Your task to perform on an android device: View the shopping cart on costco. Search for "macbook pro 13 inch" on costco, select the first entry, and add it to the cart. Image 0: 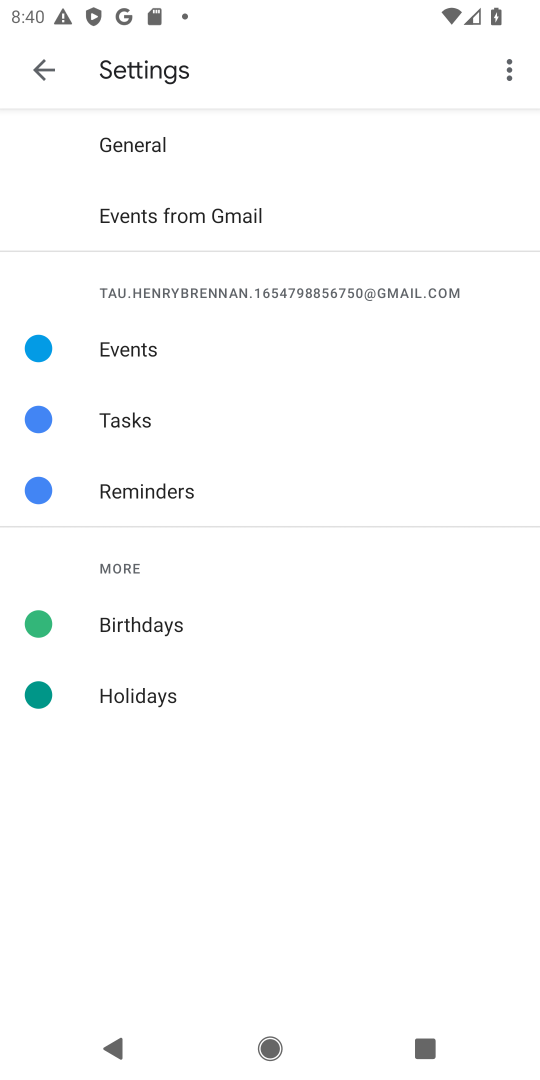
Step 0: press home button
Your task to perform on an android device: View the shopping cart on costco. Search for "macbook pro 13 inch" on costco, select the first entry, and add it to the cart. Image 1: 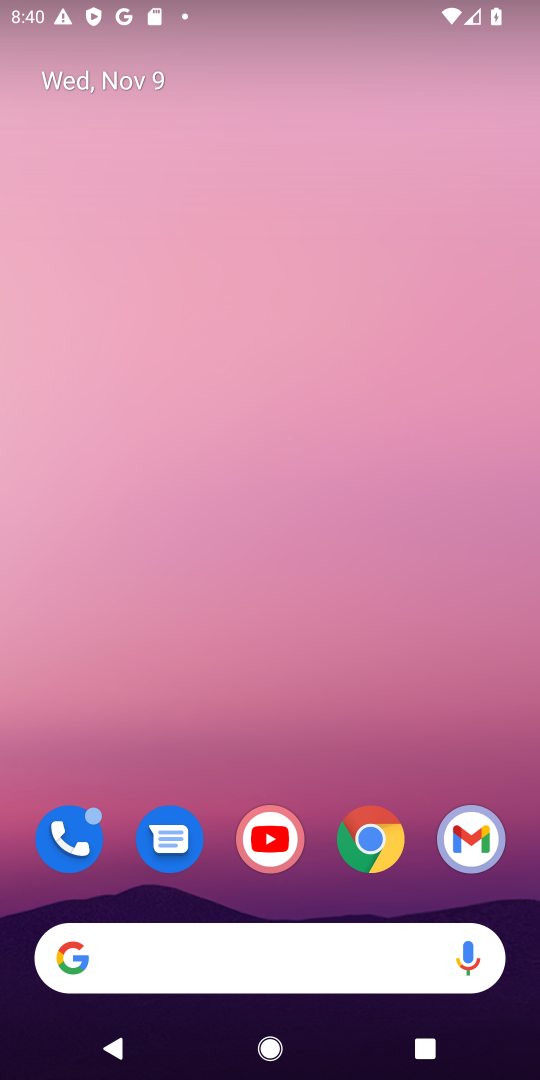
Step 1: drag from (281, 801) to (155, 98)
Your task to perform on an android device: View the shopping cart on costco. Search for "macbook pro 13 inch" on costco, select the first entry, and add it to the cart. Image 2: 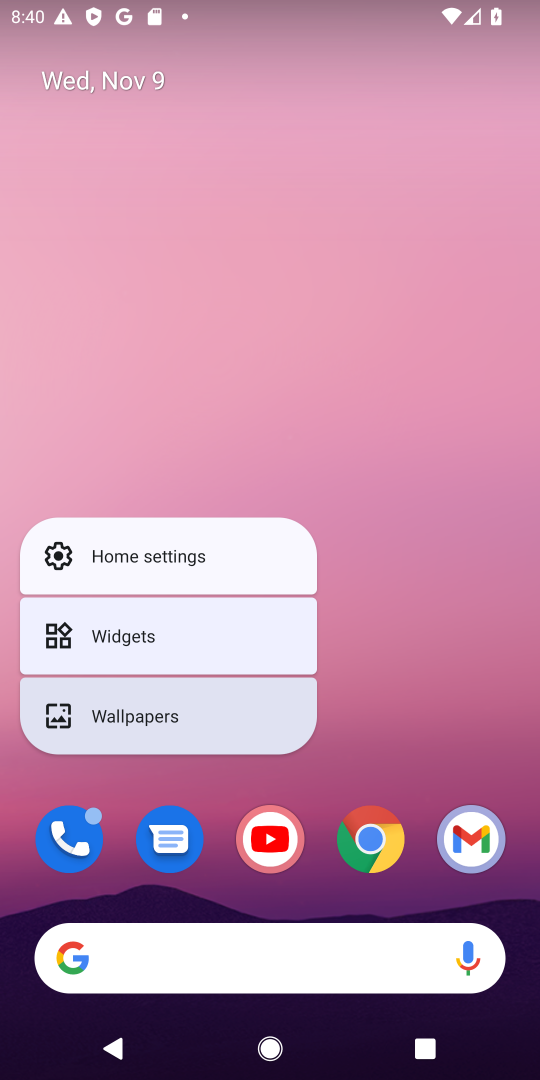
Step 2: click (223, 445)
Your task to perform on an android device: View the shopping cart on costco. Search for "macbook pro 13 inch" on costco, select the first entry, and add it to the cart. Image 3: 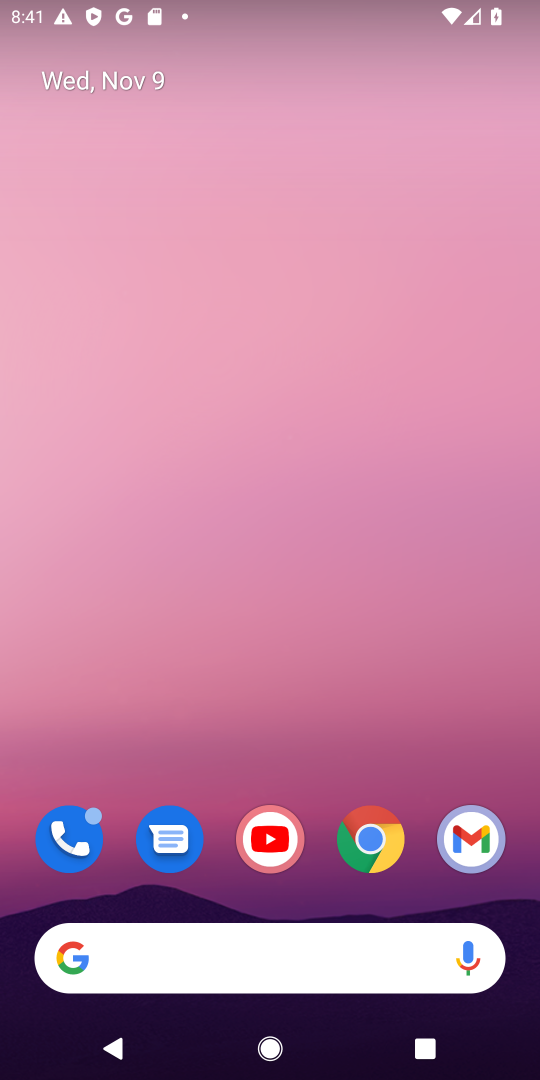
Step 3: drag from (321, 782) to (242, 81)
Your task to perform on an android device: View the shopping cart on costco. Search for "macbook pro 13 inch" on costco, select the first entry, and add it to the cart. Image 4: 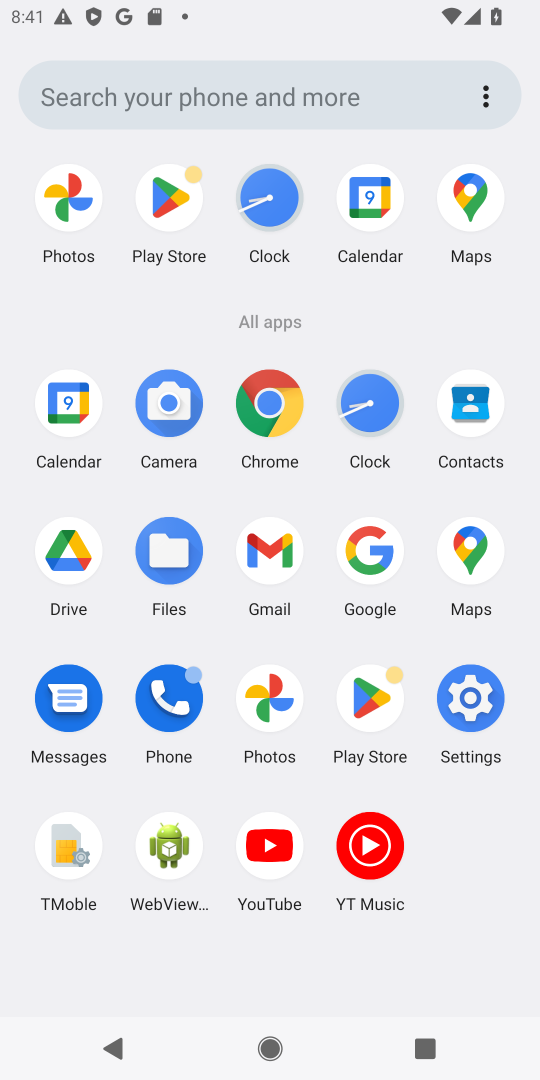
Step 4: click (270, 437)
Your task to perform on an android device: View the shopping cart on costco. Search for "macbook pro 13 inch" on costco, select the first entry, and add it to the cart. Image 5: 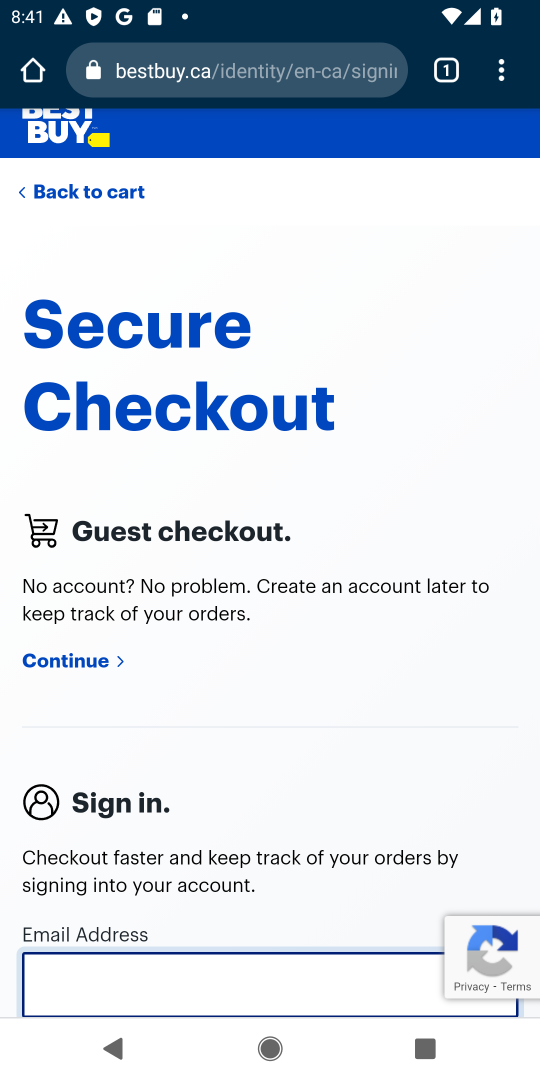
Step 5: click (197, 55)
Your task to perform on an android device: View the shopping cart on costco. Search for "macbook pro 13 inch" on costco, select the first entry, and add it to the cart. Image 6: 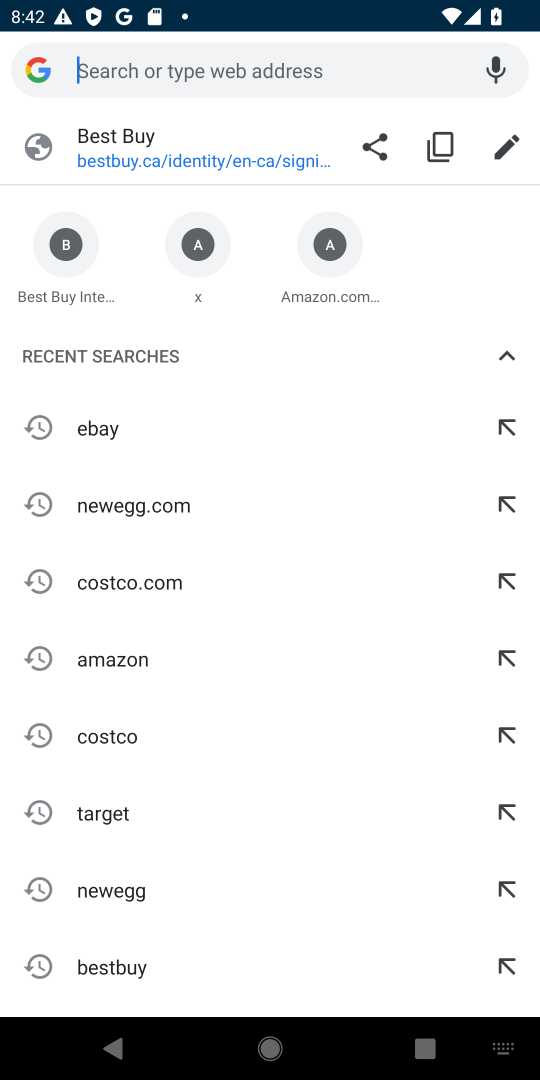
Step 6: type "costco"
Your task to perform on an android device: View the shopping cart on costco. Search for "macbook pro 13 inch" on costco, select the first entry, and add it to the cart. Image 7: 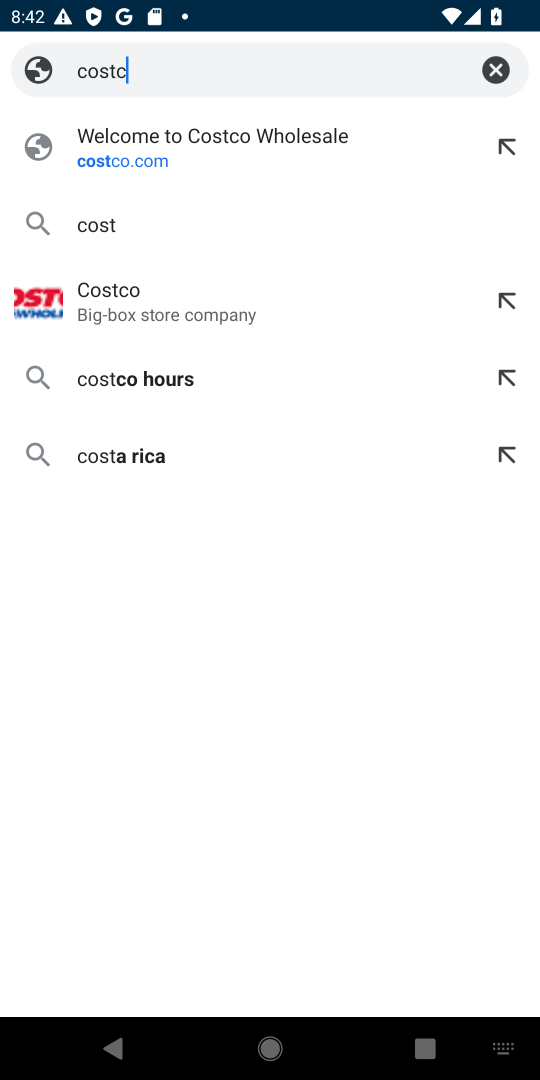
Step 7: press enter
Your task to perform on an android device: View the shopping cart on costco. Search for "macbook pro 13 inch" on costco, select the first entry, and add it to the cart. Image 8: 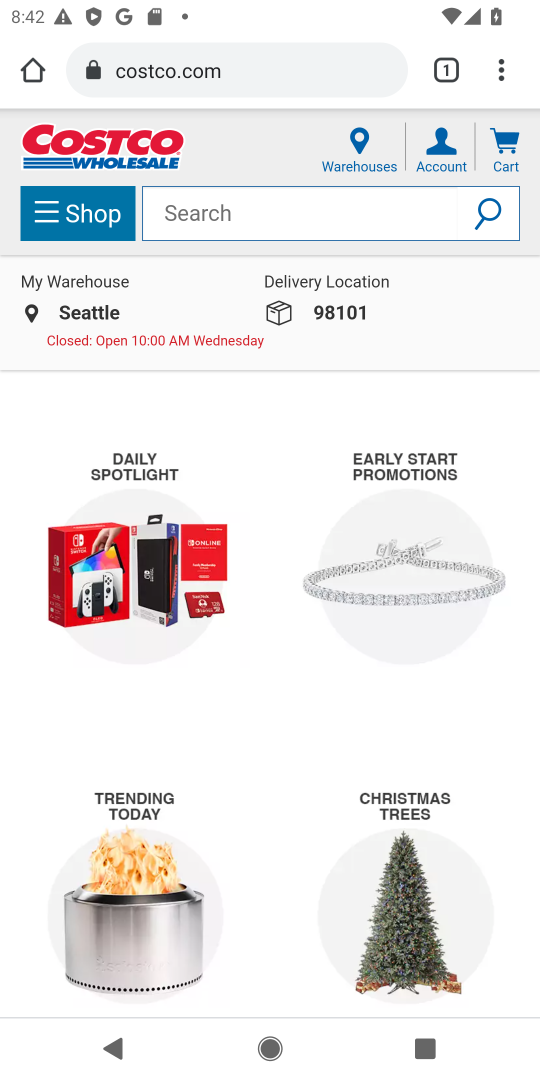
Step 8: click (276, 191)
Your task to perform on an android device: View the shopping cart on costco. Search for "macbook pro 13 inch" on costco, select the first entry, and add it to the cart. Image 9: 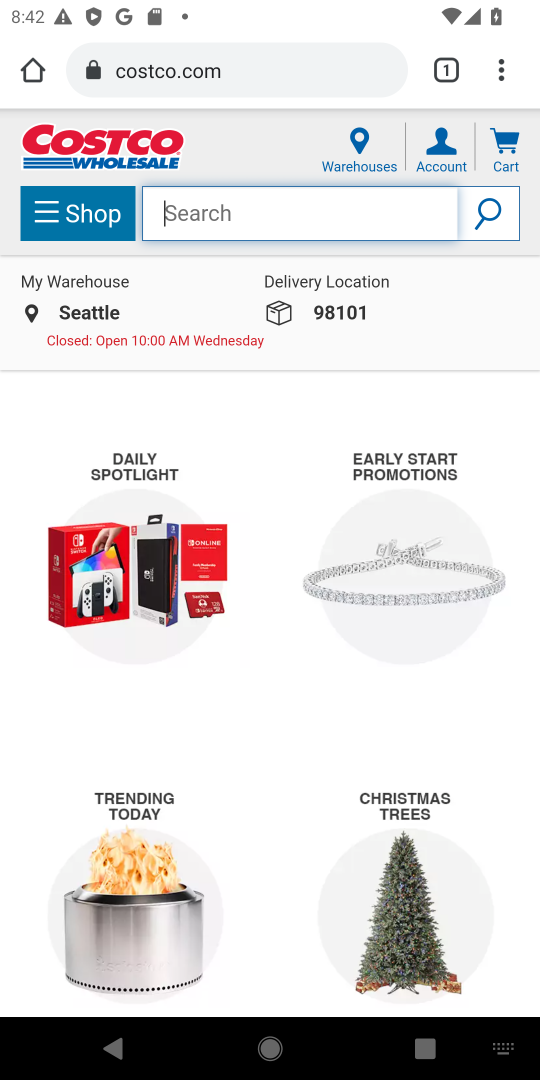
Step 9: click (284, 207)
Your task to perform on an android device: View the shopping cart on costco. Search for "macbook pro 13 inch" on costco, select the first entry, and add it to the cart. Image 10: 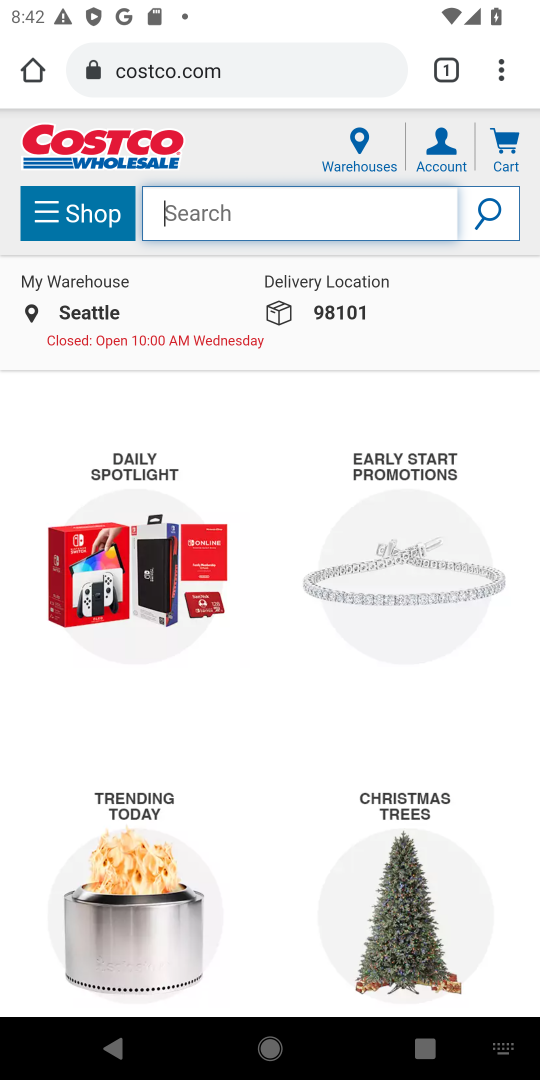
Step 10: type "macbook pro 13 inch"
Your task to perform on an android device: View the shopping cart on costco. Search for "macbook pro 13 inch" on costco, select the first entry, and add it to the cart. Image 11: 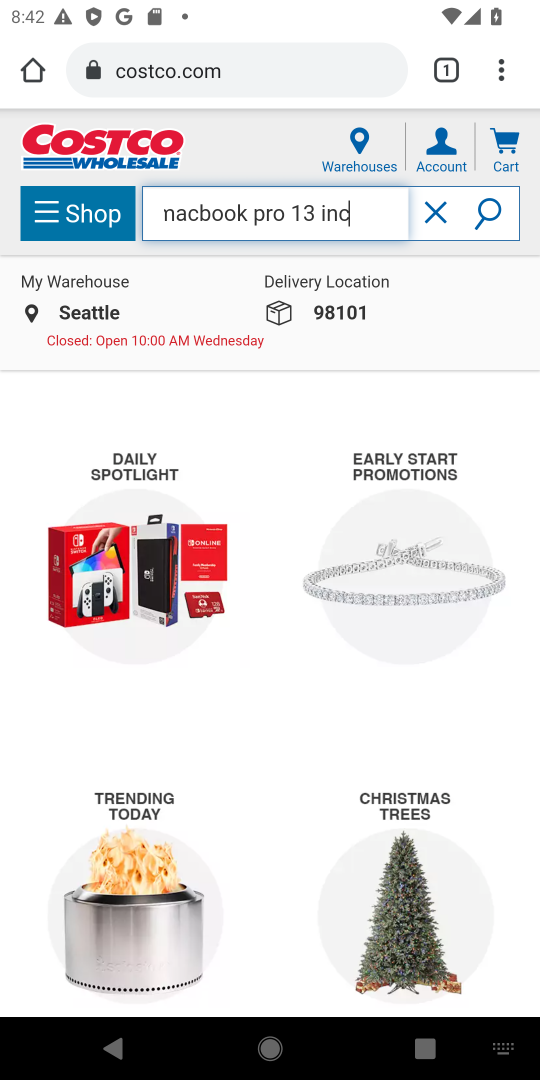
Step 11: press enter
Your task to perform on an android device: View the shopping cart on costco. Search for "macbook pro 13 inch" on costco, select the first entry, and add it to the cart. Image 12: 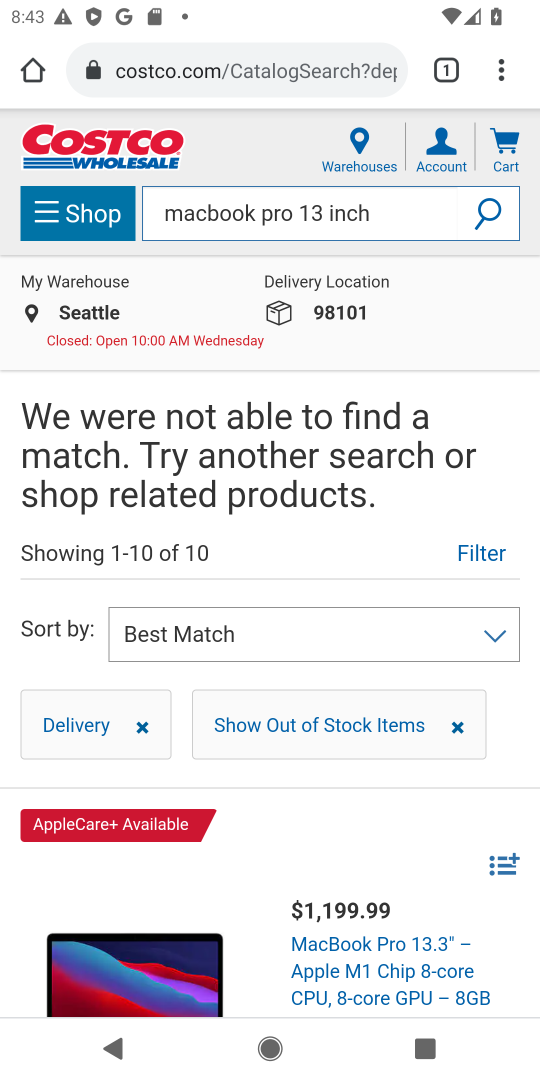
Step 12: drag from (296, 734) to (215, 353)
Your task to perform on an android device: View the shopping cart on costco. Search for "macbook pro 13 inch" on costco, select the first entry, and add it to the cart. Image 13: 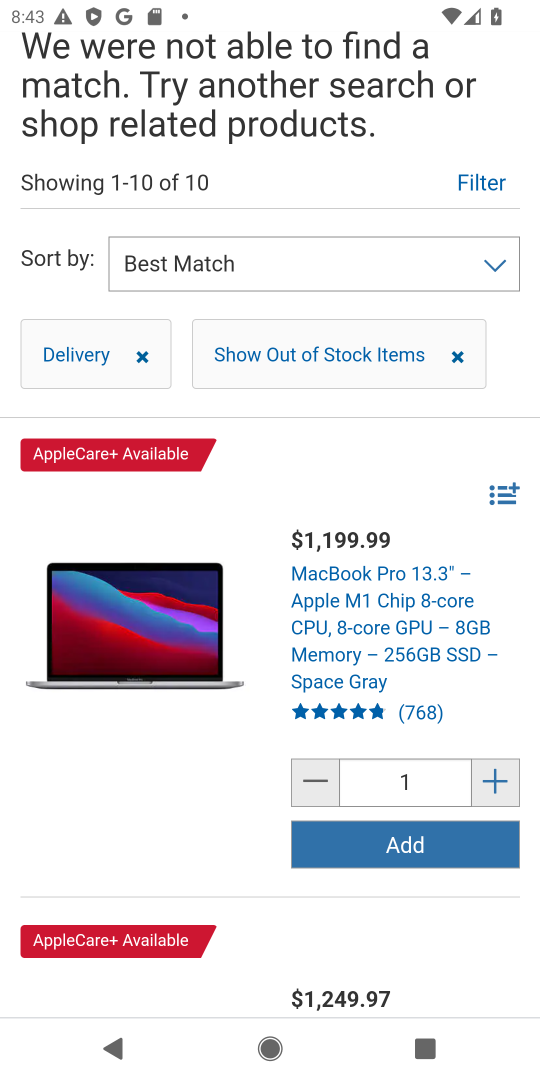
Step 13: click (422, 846)
Your task to perform on an android device: View the shopping cart on costco. Search for "macbook pro 13 inch" on costco, select the first entry, and add it to the cart. Image 14: 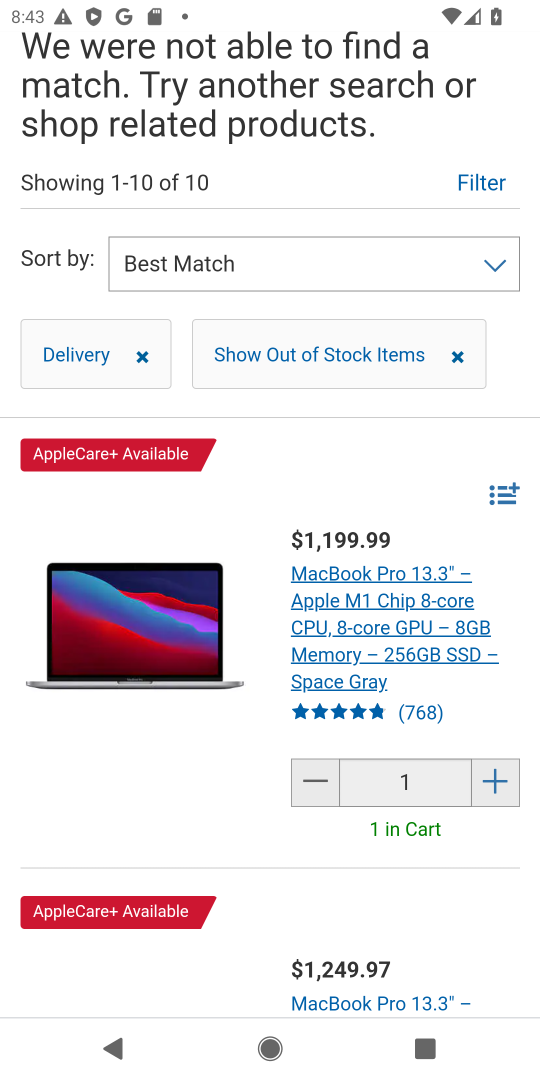
Step 14: drag from (306, 408) to (362, 874)
Your task to perform on an android device: View the shopping cart on costco. Search for "macbook pro 13 inch" on costco, select the first entry, and add it to the cart. Image 15: 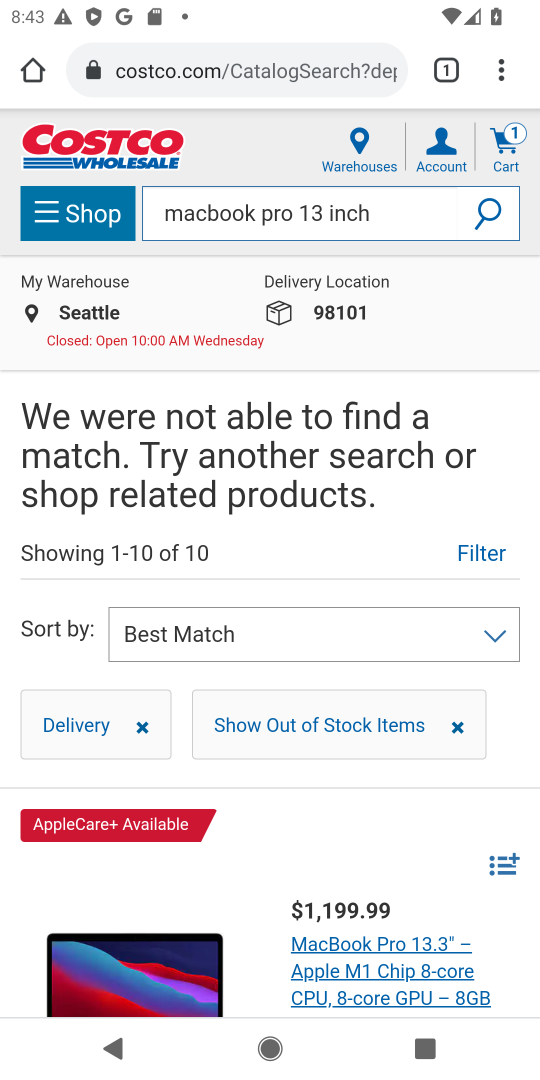
Step 15: click (514, 140)
Your task to perform on an android device: View the shopping cart on costco. Search for "macbook pro 13 inch" on costco, select the first entry, and add it to the cart. Image 16: 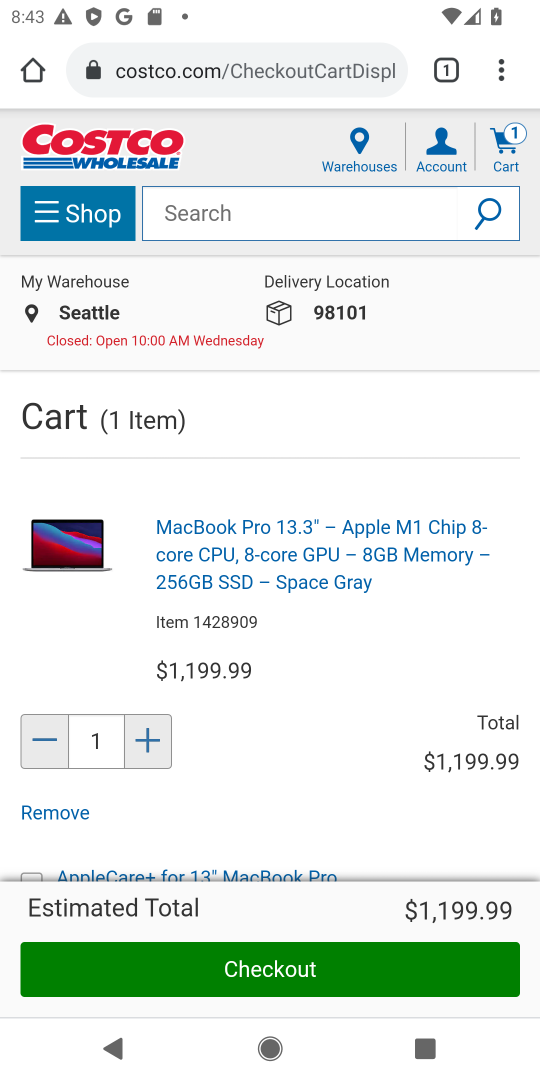
Step 16: click (270, 968)
Your task to perform on an android device: View the shopping cart on costco. Search for "macbook pro 13 inch" on costco, select the first entry, and add it to the cart. Image 17: 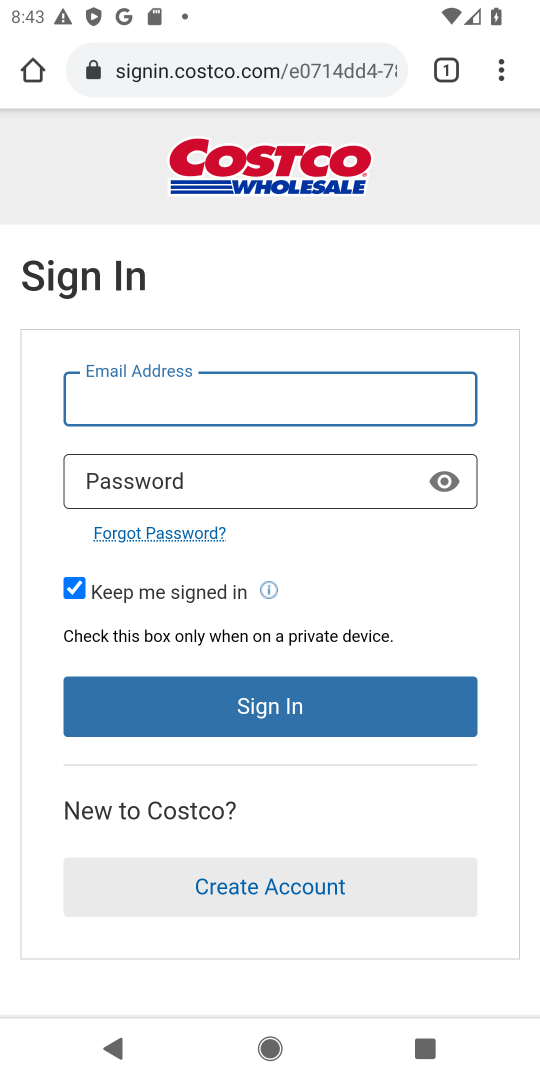
Step 17: task complete